Your task to perform on an android device: open chrome and create a bookmark for the current page Image 0: 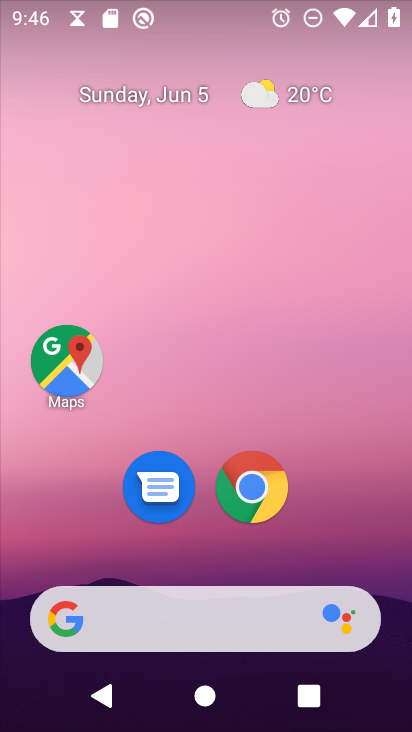
Step 0: click (258, 469)
Your task to perform on an android device: open chrome and create a bookmark for the current page Image 1: 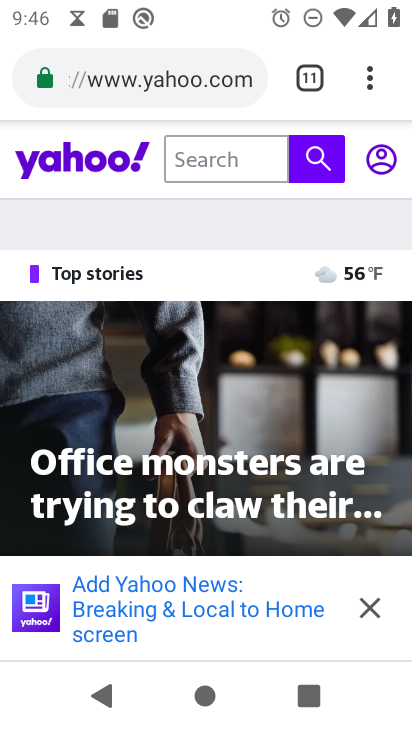
Step 1: click (371, 64)
Your task to perform on an android device: open chrome and create a bookmark for the current page Image 2: 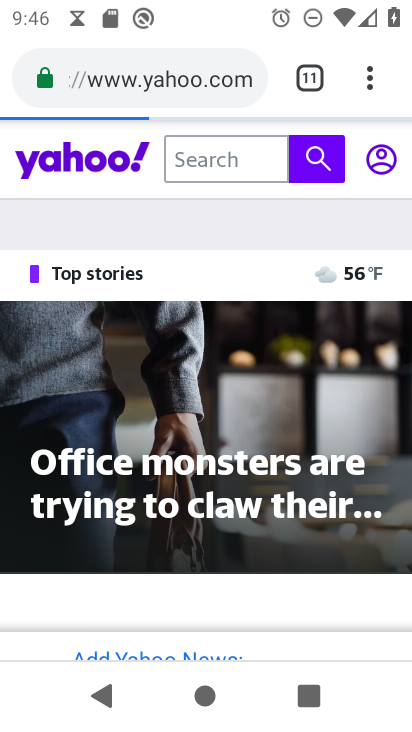
Step 2: click (363, 78)
Your task to perform on an android device: open chrome and create a bookmark for the current page Image 3: 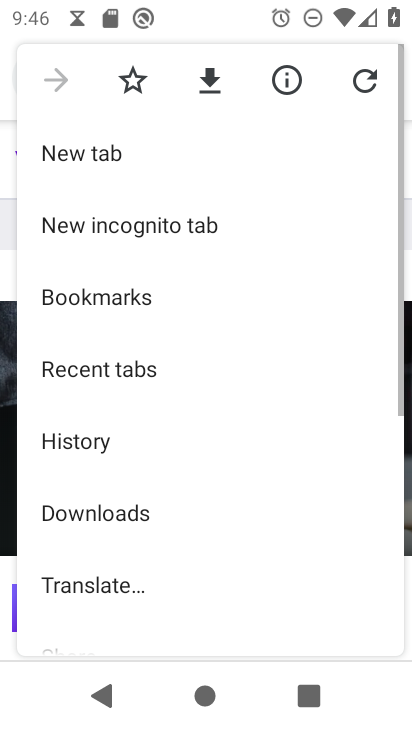
Step 3: click (135, 81)
Your task to perform on an android device: open chrome and create a bookmark for the current page Image 4: 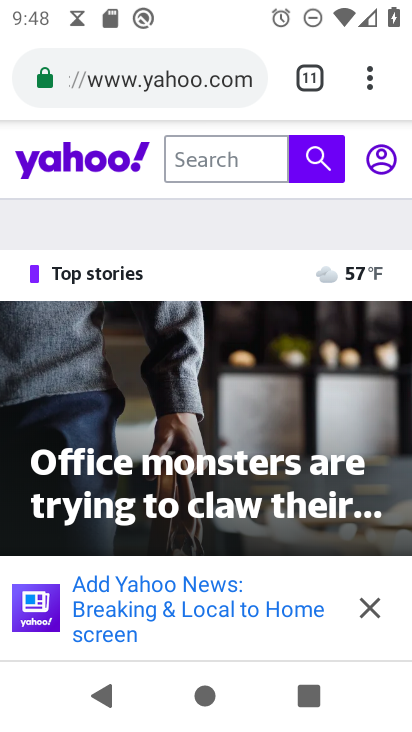
Step 4: task complete